Your task to perform on an android device: turn off improve location accuracy Image 0: 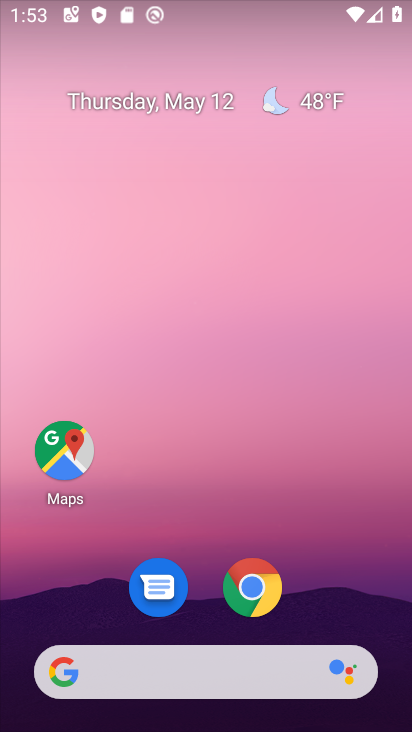
Step 0: drag from (230, 656) to (257, 307)
Your task to perform on an android device: turn off improve location accuracy Image 1: 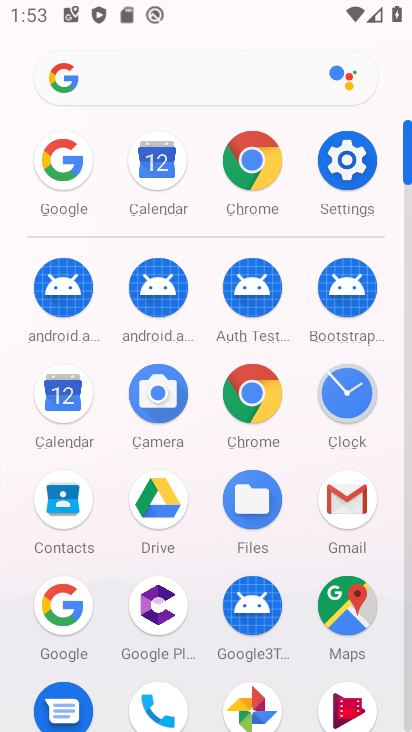
Step 1: click (345, 205)
Your task to perform on an android device: turn off improve location accuracy Image 2: 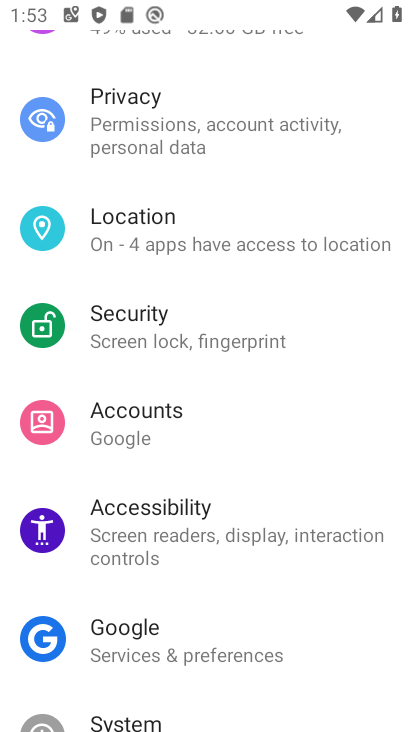
Step 2: click (205, 261)
Your task to perform on an android device: turn off improve location accuracy Image 3: 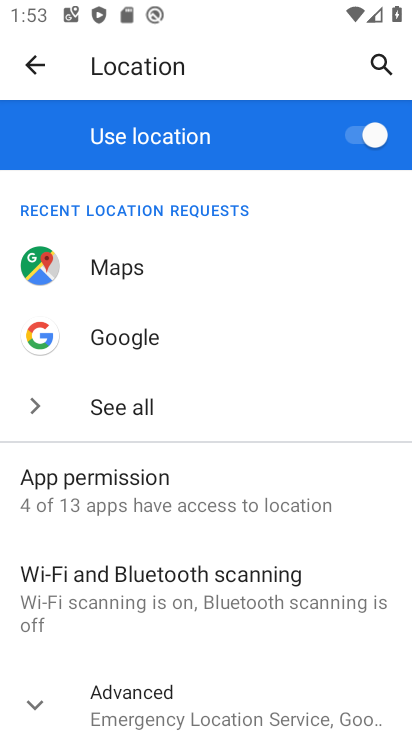
Step 3: click (150, 696)
Your task to perform on an android device: turn off improve location accuracy Image 4: 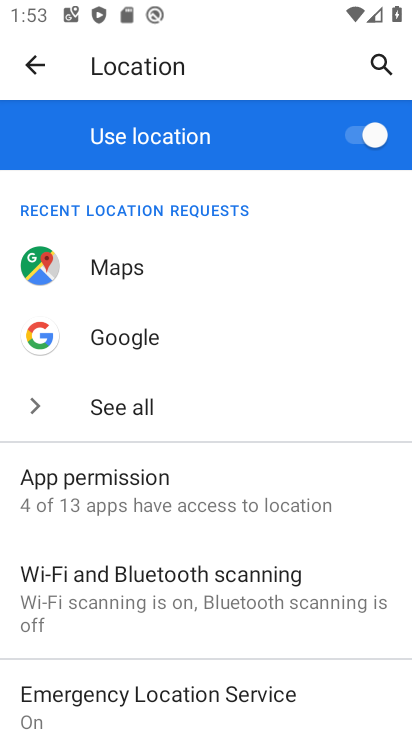
Step 4: drag from (180, 609) to (211, 417)
Your task to perform on an android device: turn off improve location accuracy Image 5: 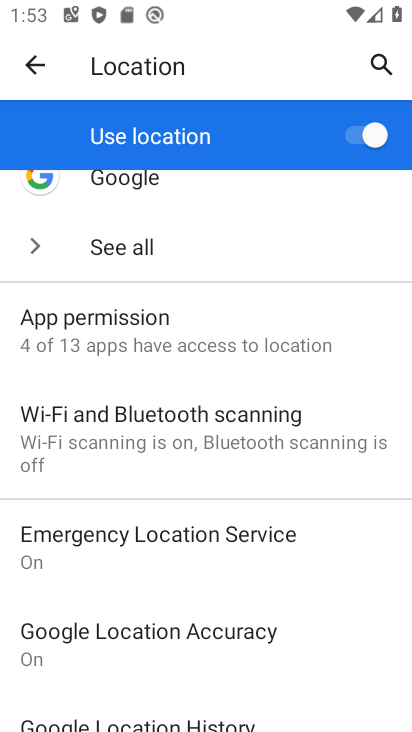
Step 5: drag from (168, 604) to (193, 444)
Your task to perform on an android device: turn off improve location accuracy Image 6: 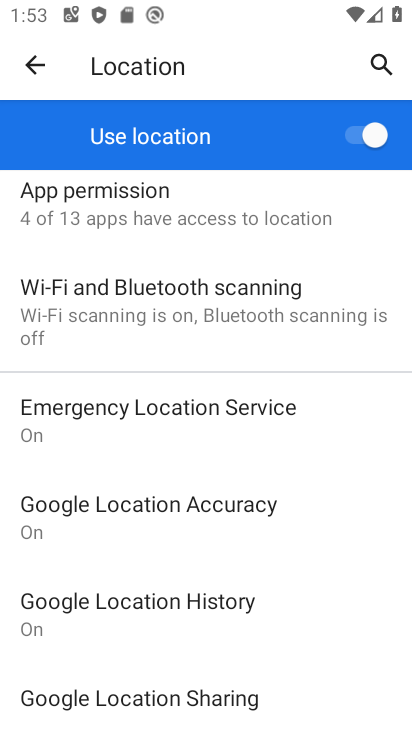
Step 6: click (194, 515)
Your task to perform on an android device: turn off improve location accuracy Image 7: 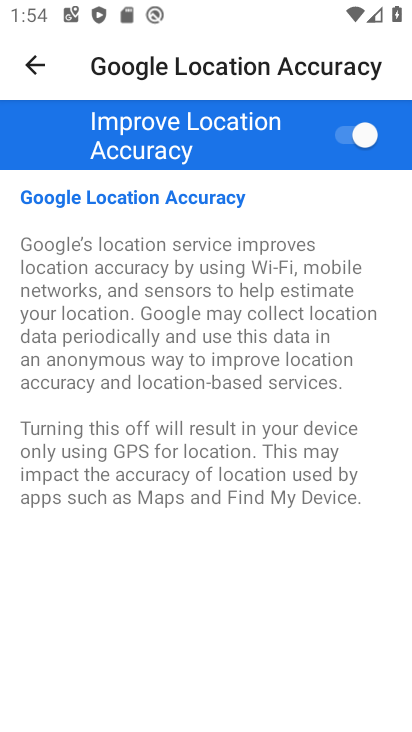
Step 7: click (338, 135)
Your task to perform on an android device: turn off improve location accuracy Image 8: 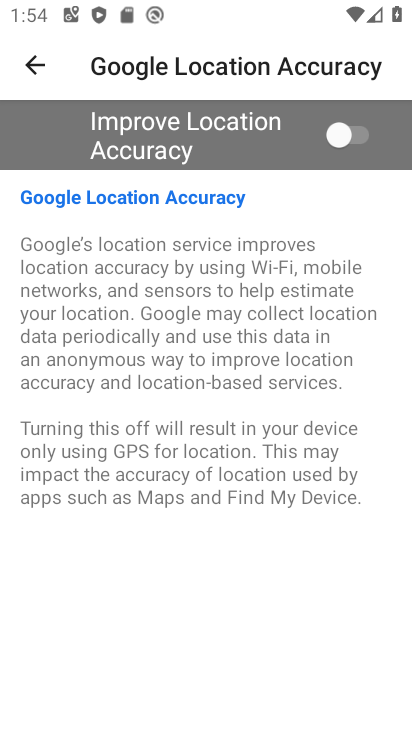
Step 8: task complete